Your task to perform on an android device: Open the stopwatch Image 0: 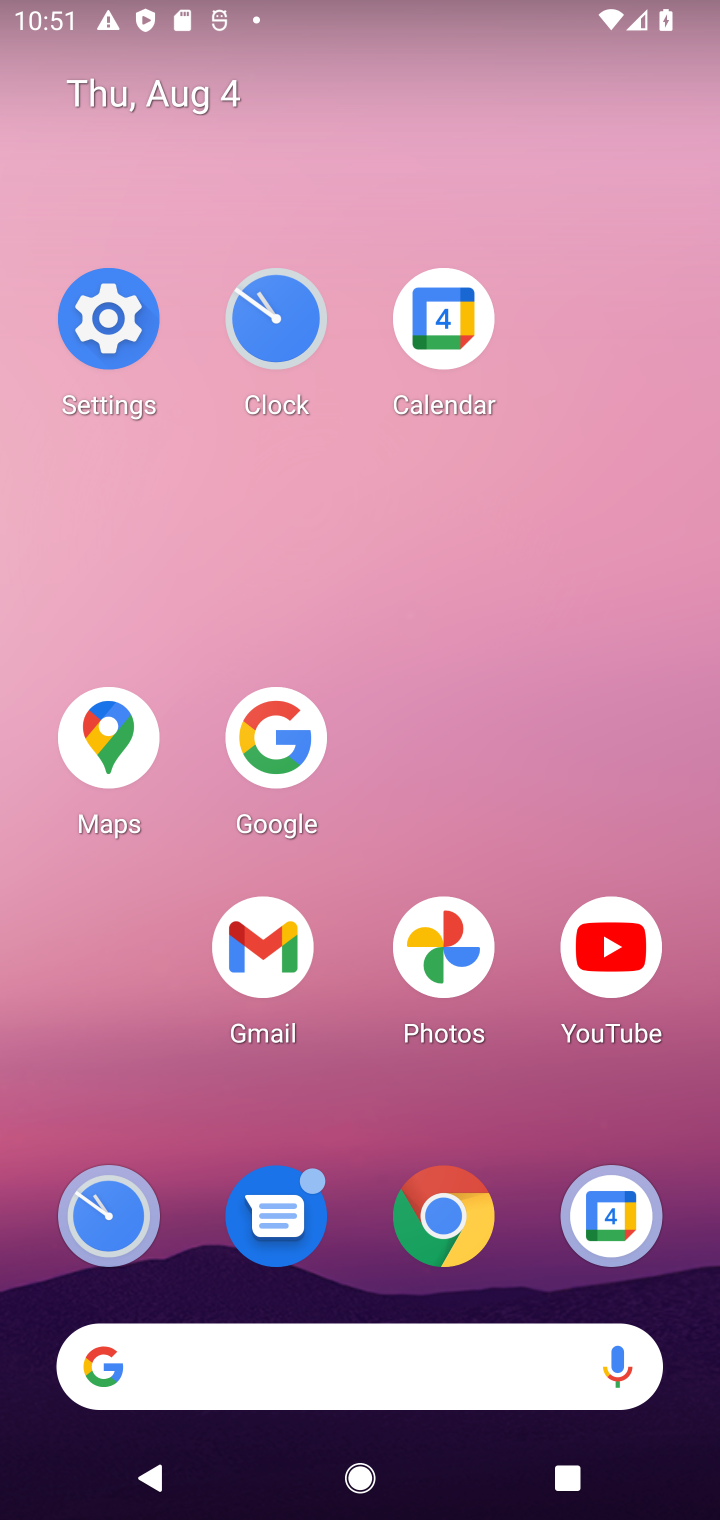
Step 0: click (272, 331)
Your task to perform on an android device: Open the stopwatch Image 1: 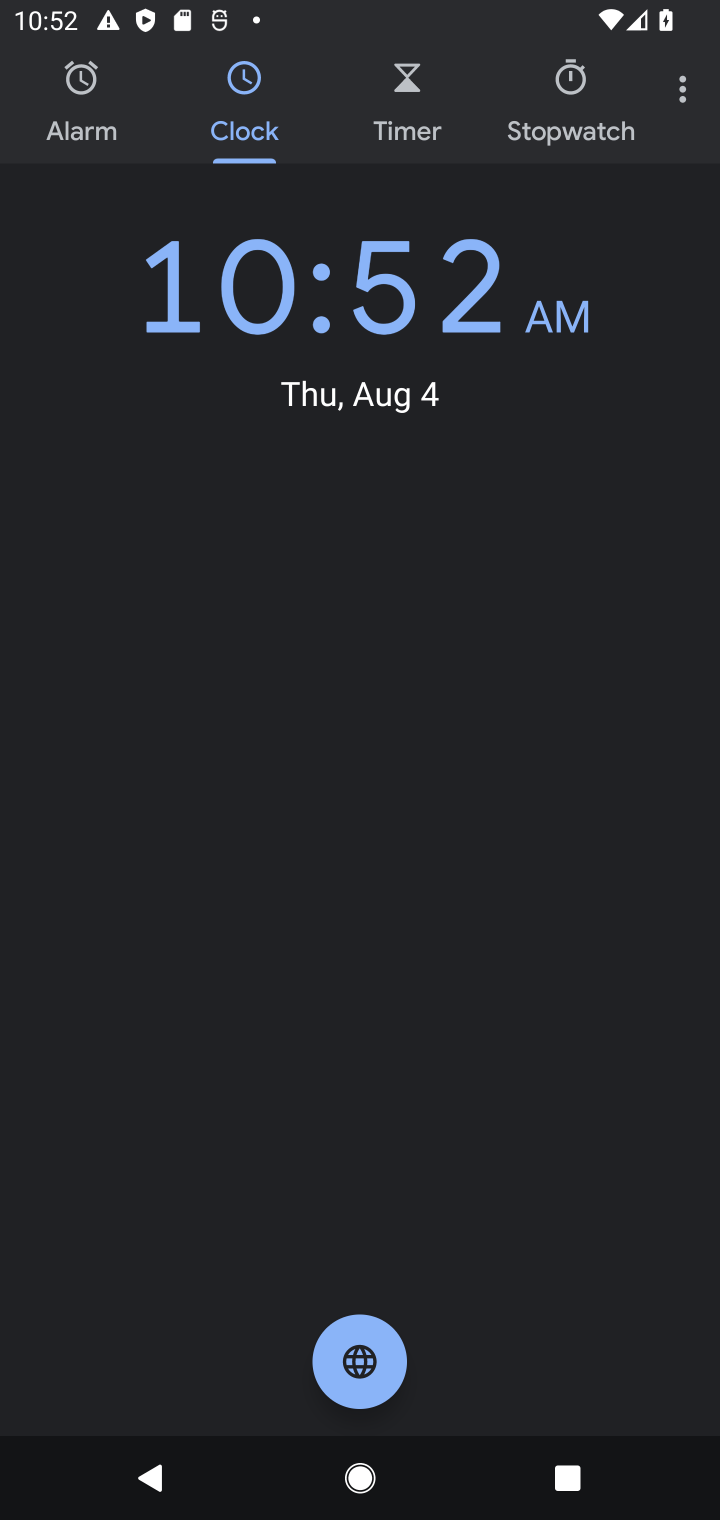
Step 1: click (611, 79)
Your task to perform on an android device: Open the stopwatch Image 2: 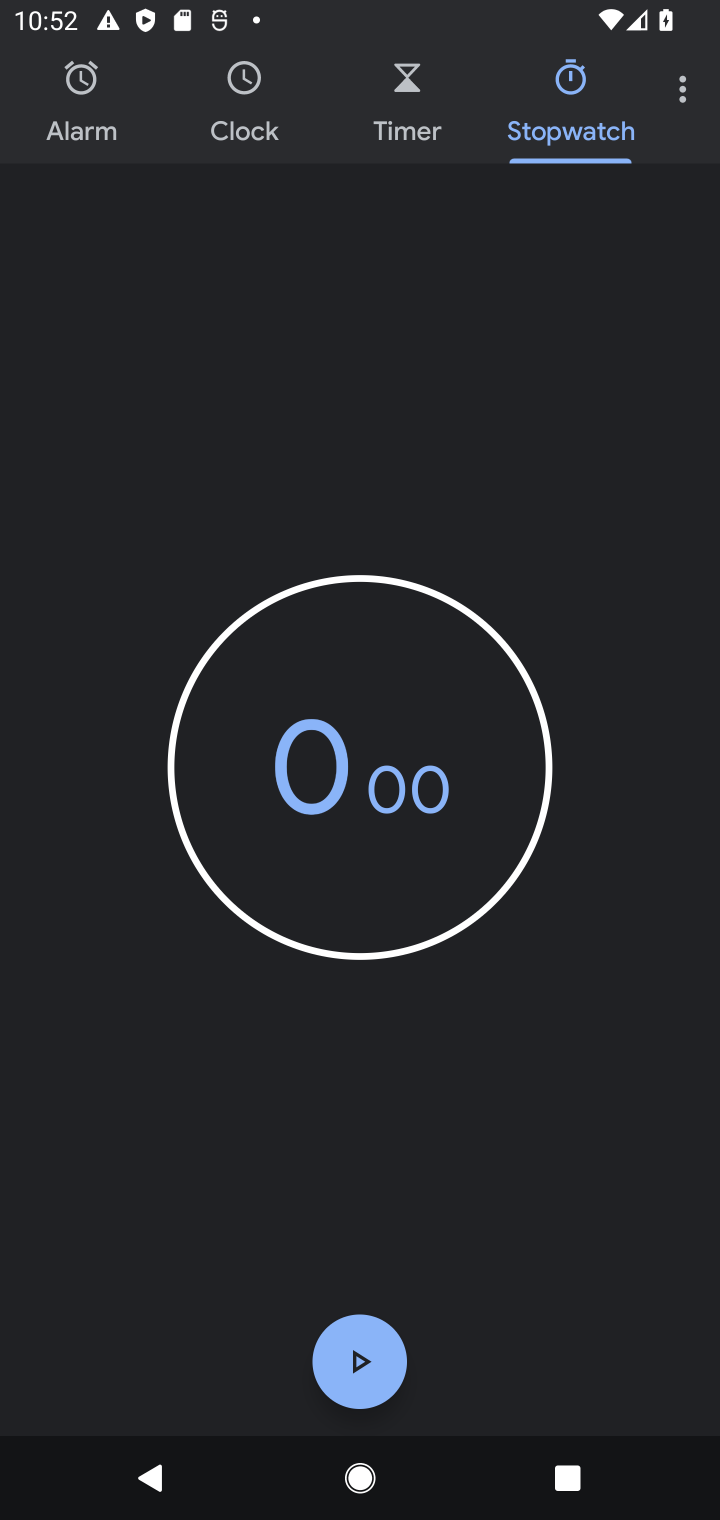
Step 2: click (498, 715)
Your task to perform on an android device: Open the stopwatch Image 3: 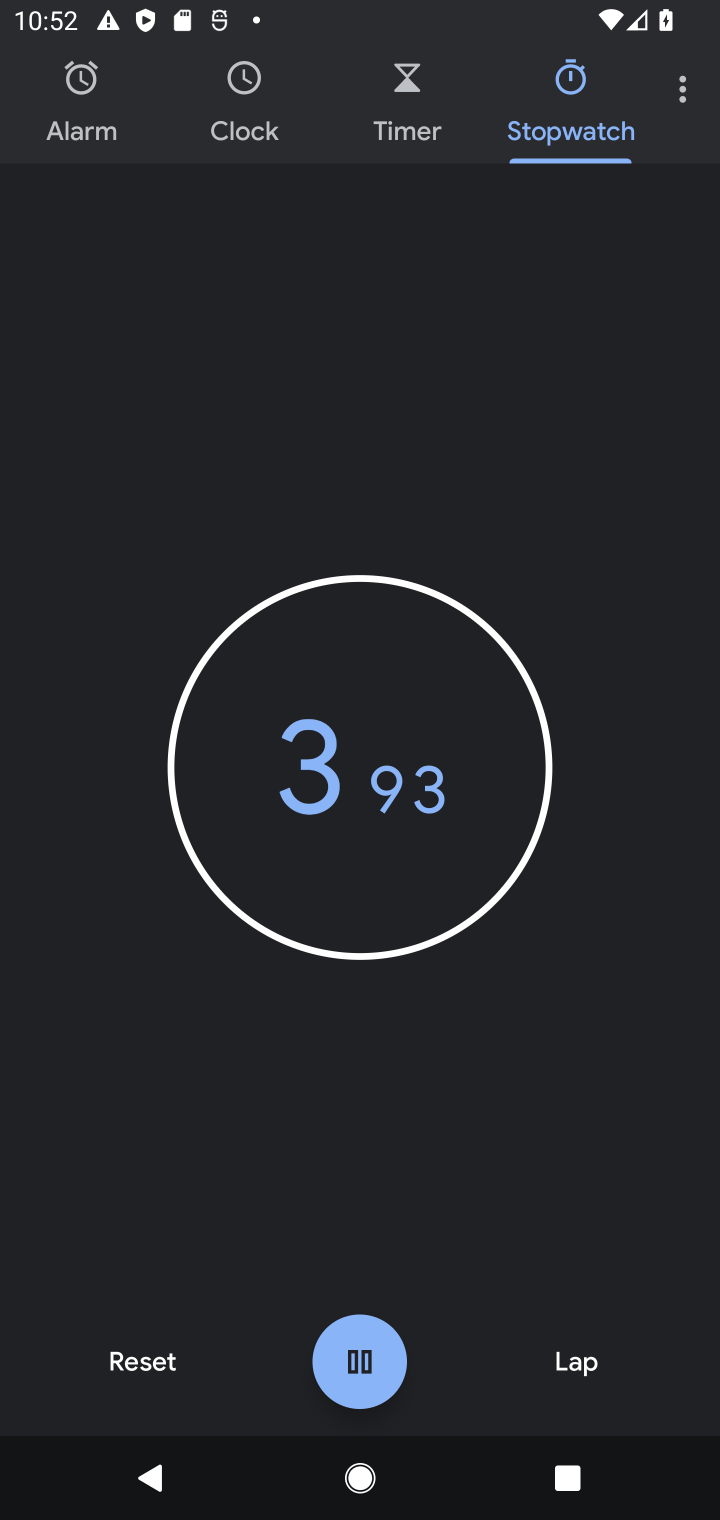
Step 3: task complete